Your task to perform on an android device: check data usage Image 0: 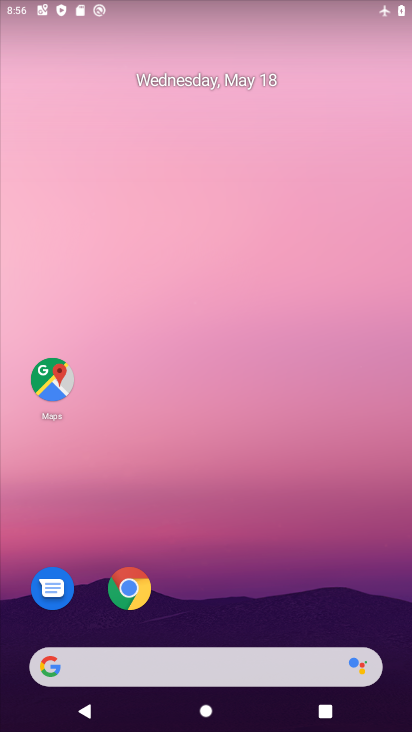
Step 0: drag from (358, 627) to (351, 3)
Your task to perform on an android device: check data usage Image 1: 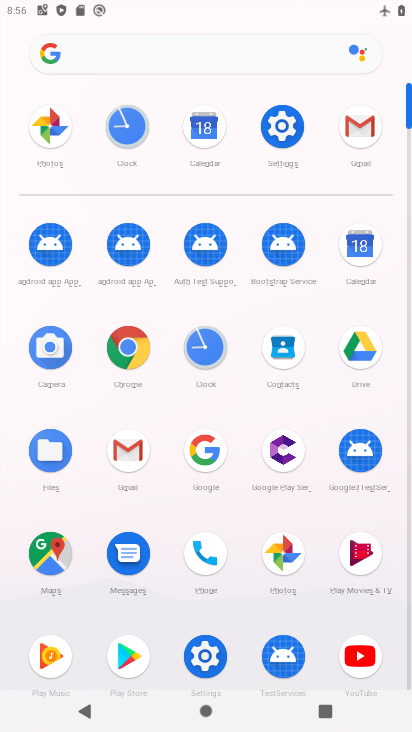
Step 1: click (279, 135)
Your task to perform on an android device: check data usage Image 2: 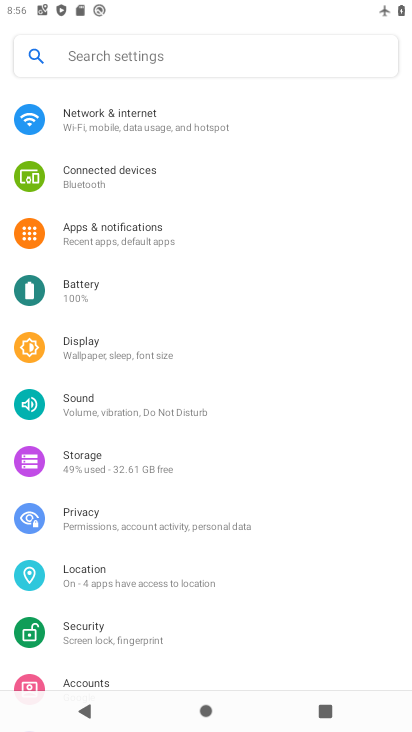
Step 2: click (88, 130)
Your task to perform on an android device: check data usage Image 3: 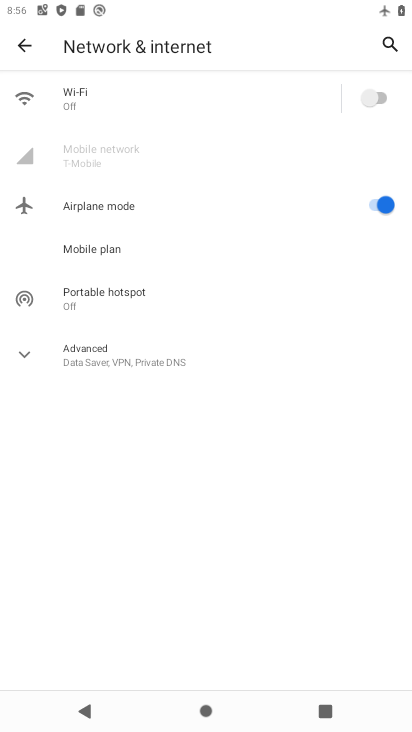
Step 3: click (25, 361)
Your task to perform on an android device: check data usage Image 4: 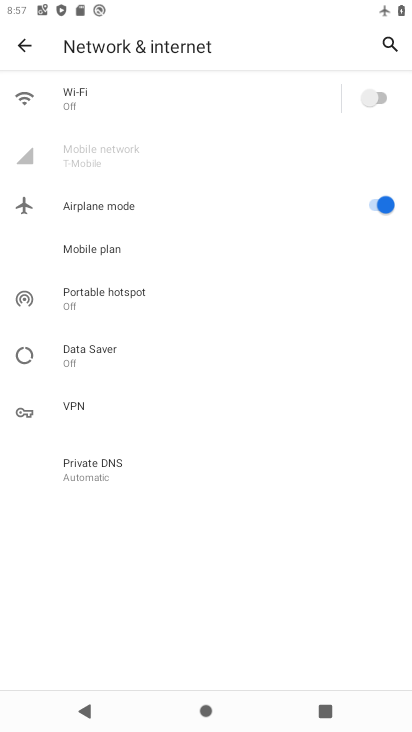
Step 4: task complete